Your task to perform on an android device: Open Google Maps and go to "Timeline" Image 0: 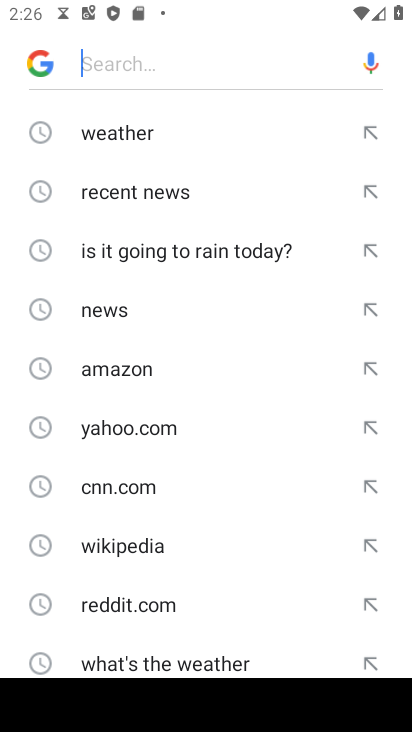
Step 0: press back button
Your task to perform on an android device: Open Google Maps and go to "Timeline" Image 1: 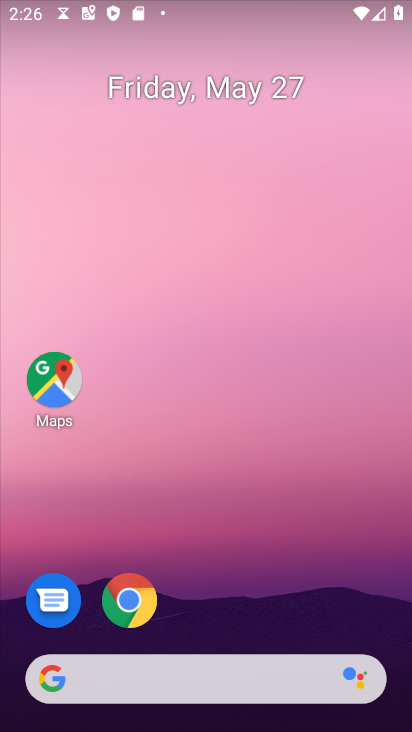
Step 1: drag from (305, 551) to (230, 11)
Your task to perform on an android device: Open Google Maps and go to "Timeline" Image 2: 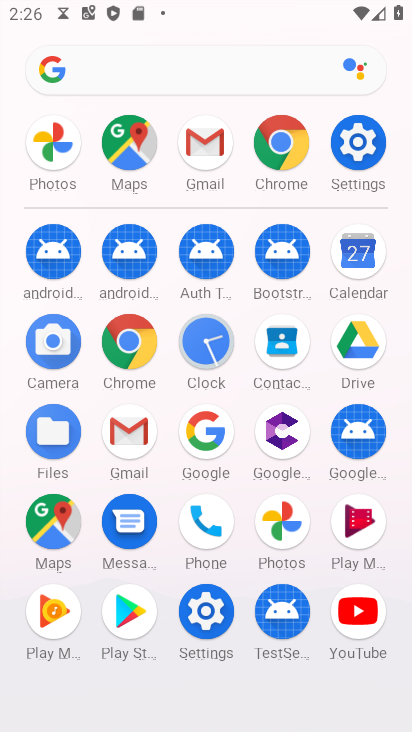
Step 2: drag from (5, 550) to (22, 266)
Your task to perform on an android device: Open Google Maps and go to "Timeline" Image 3: 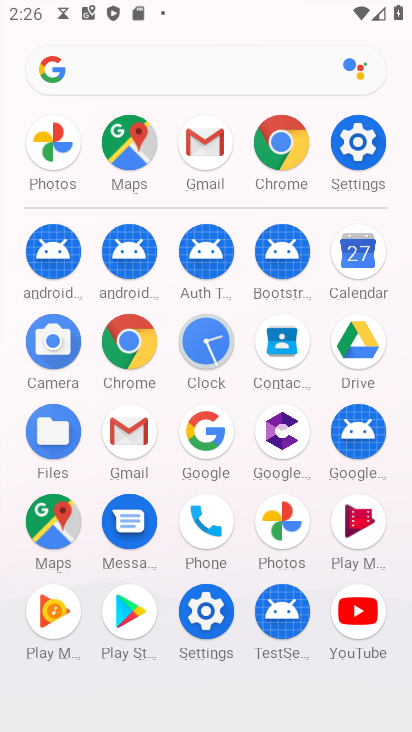
Step 3: drag from (16, 540) to (3, 296)
Your task to perform on an android device: Open Google Maps and go to "Timeline" Image 4: 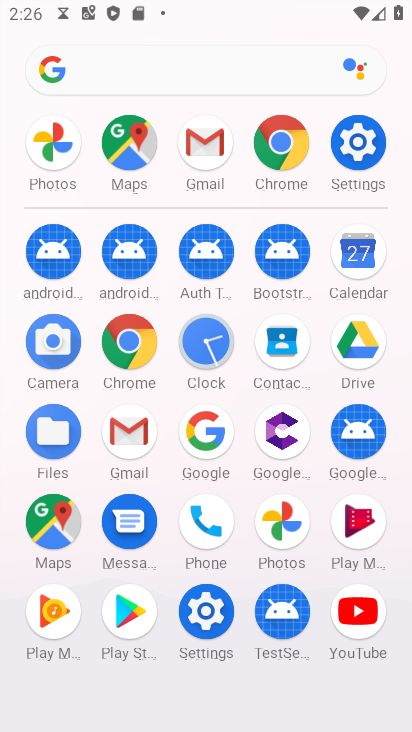
Step 4: drag from (25, 560) to (26, 336)
Your task to perform on an android device: Open Google Maps and go to "Timeline" Image 5: 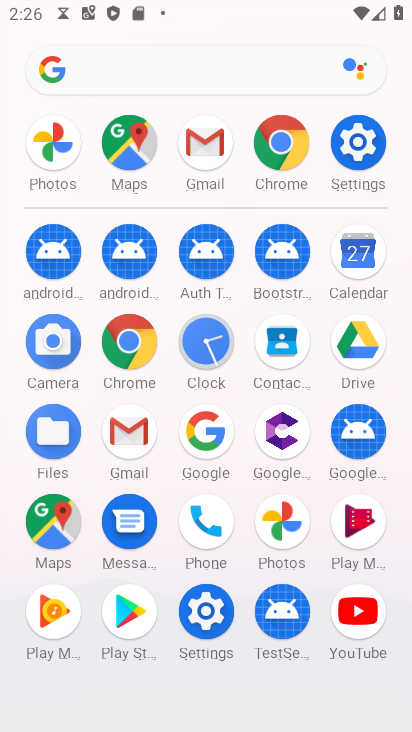
Step 5: click (52, 524)
Your task to perform on an android device: Open Google Maps and go to "Timeline" Image 6: 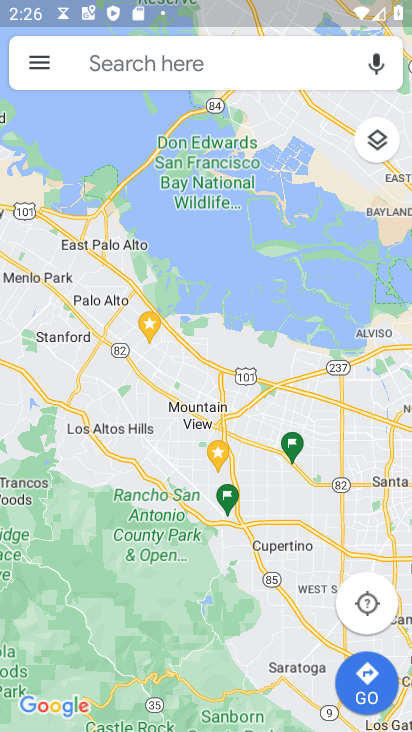
Step 6: click (37, 60)
Your task to perform on an android device: Open Google Maps and go to "Timeline" Image 7: 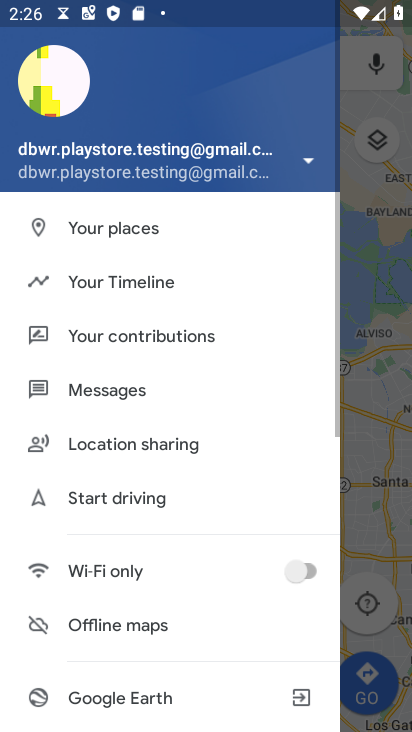
Step 7: click (142, 272)
Your task to perform on an android device: Open Google Maps and go to "Timeline" Image 8: 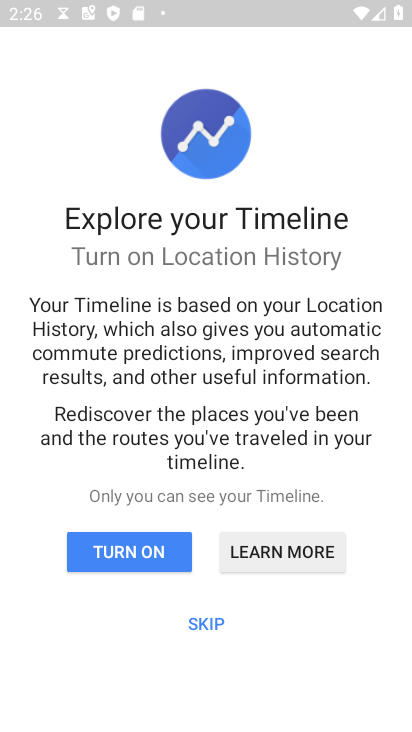
Step 8: click (148, 558)
Your task to perform on an android device: Open Google Maps and go to "Timeline" Image 9: 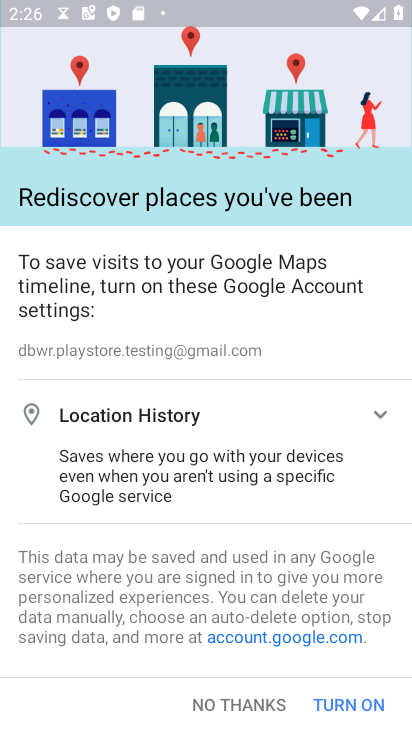
Step 9: click (351, 705)
Your task to perform on an android device: Open Google Maps and go to "Timeline" Image 10: 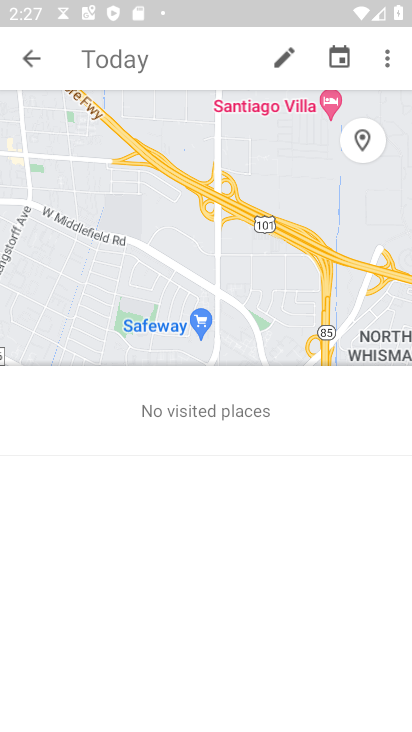
Step 10: task complete